Your task to perform on an android device: make emails show in primary in the gmail app Image 0: 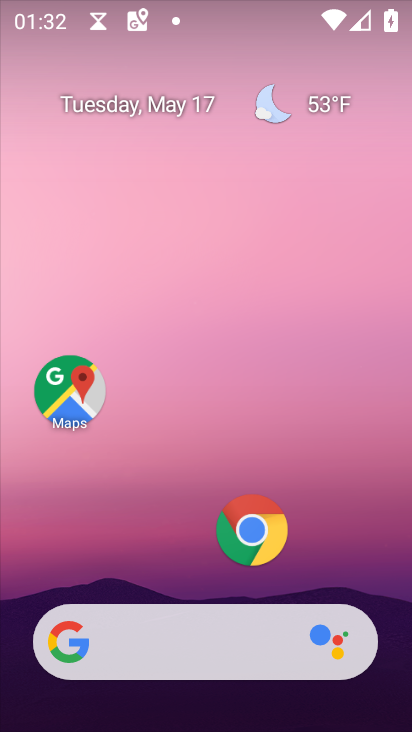
Step 0: drag from (188, 578) to (222, 82)
Your task to perform on an android device: make emails show in primary in the gmail app Image 1: 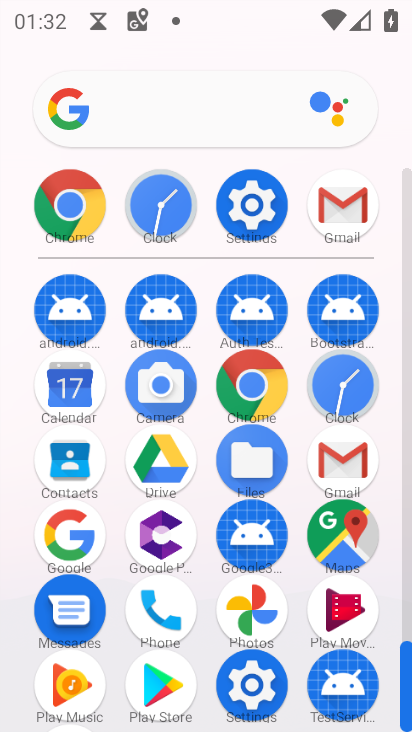
Step 1: click (337, 216)
Your task to perform on an android device: make emails show in primary in the gmail app Image 2: 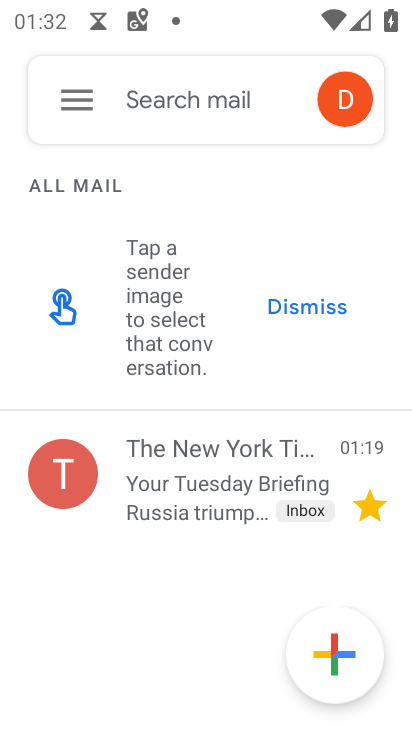
Step 2: click (79, 124)
Your task to perform on an android device: make emails show in primary in the gmail app Image 3: 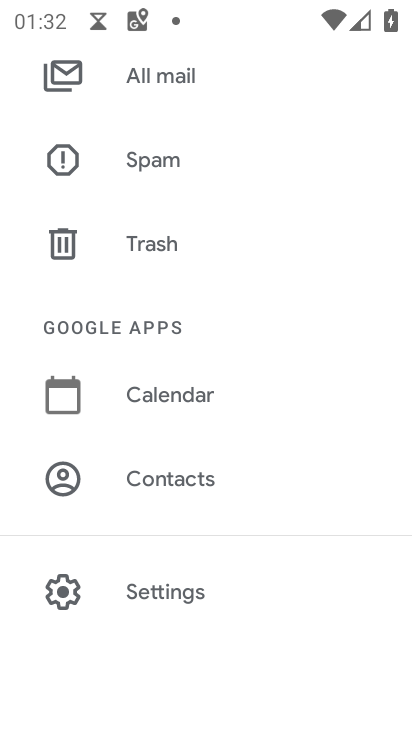
Step 3: click (187, 592)
Your task to perform on an android device: make emails show in primary in the gmail app Image 4: 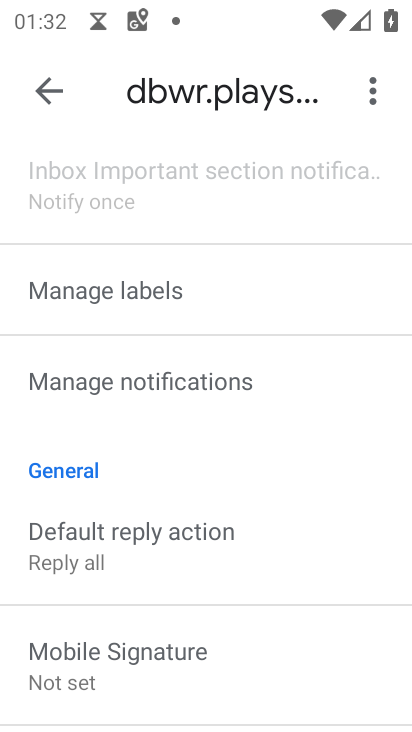
Step 4: drag from (355, 252) to (374, 480)
Your task to perform on an android device: make emails show in primary in the gmail app Image 5: 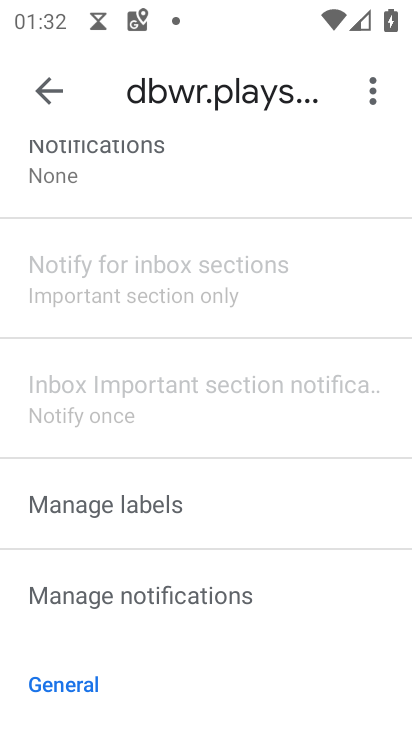
Step 5: drag from (274, 274) to (316, 533)
Your task to perform on an android device: make emails show in primary in the gmail app Image 6: 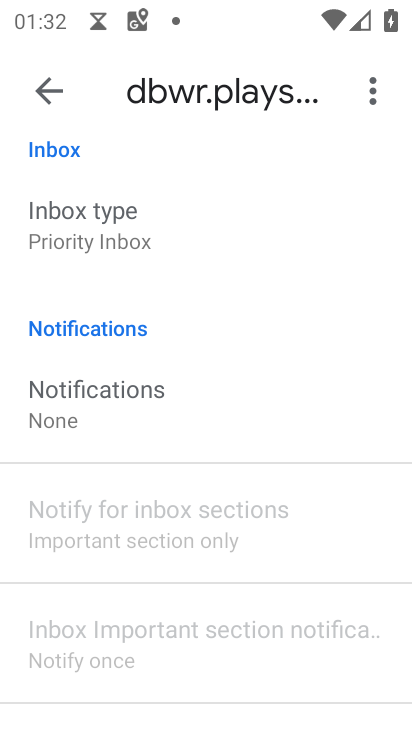
Step 6: click (117, 223)
Your task to perform on an android device: make emails show in primary in the gmail app Image 7: 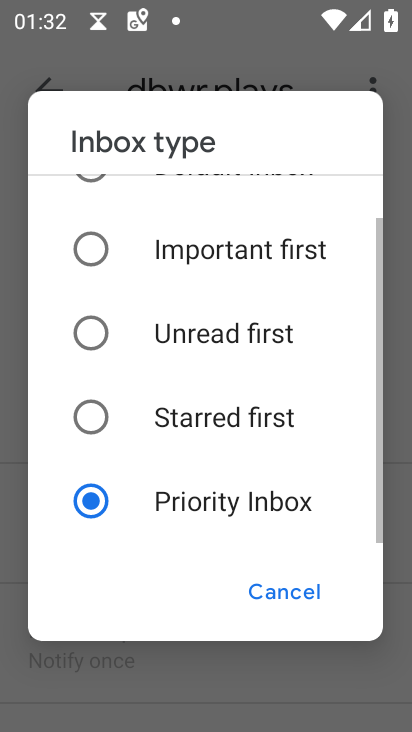
Step 7: drag from (141, 196) to (169, 358)
Your task to perform on an android device: make emails show in primary in the gmail app Image 8: 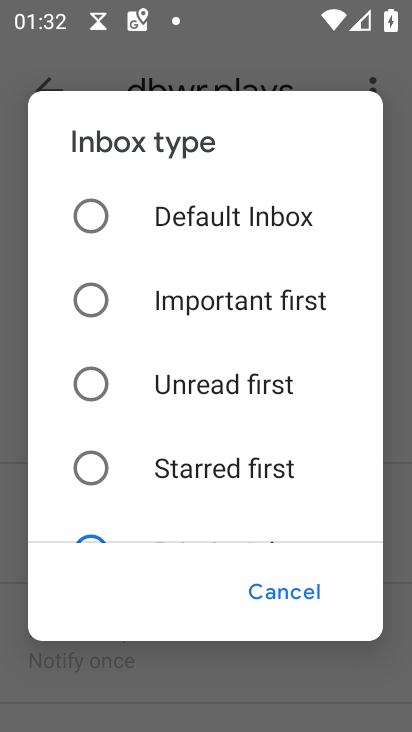
Step 8: click (92, 218)
Your task to perform on an android device: make emails show in primary in the gmail app Image 9: 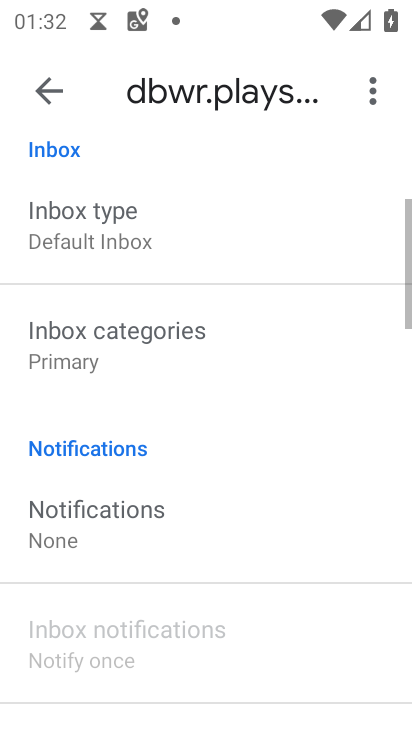
Step 9: click (105, 338)
Your task to perform on an android device: make emails show in primary in the gmail app Image 10: 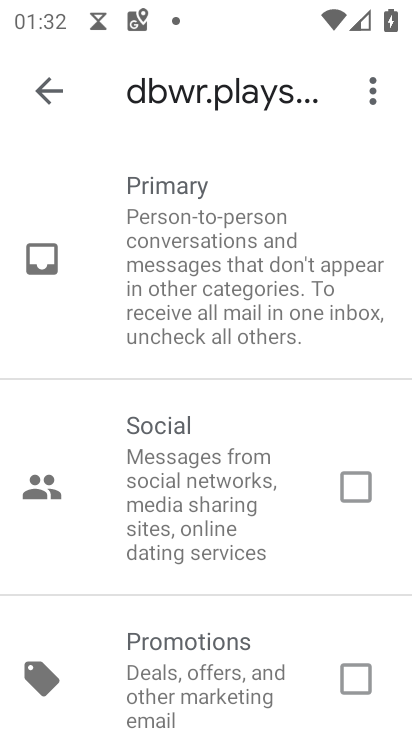
Step 10: task complete